Your task to perform on an android device: Turn off the flashlight Image 0: 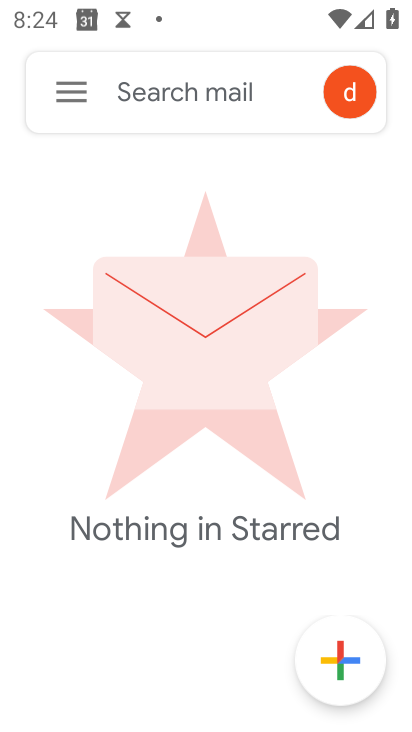
Step 0: press home button
Your task to perform on an android device: Turn off the flashlight Image 1: 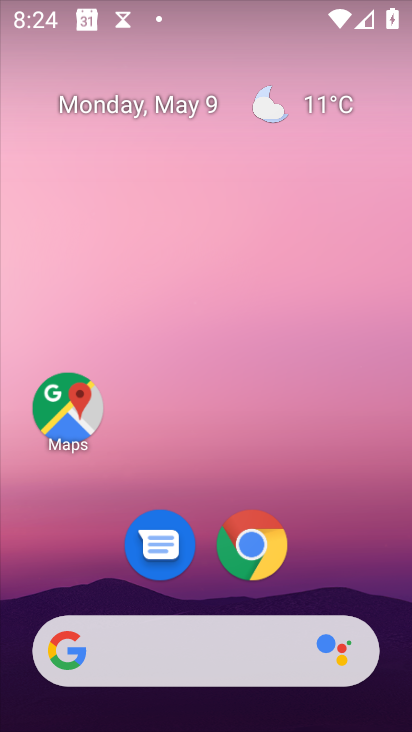
Step 1: drag from (212, 723) to (142, 171)
Your task to perform on an android device: Turn off the flashlight Image 2: 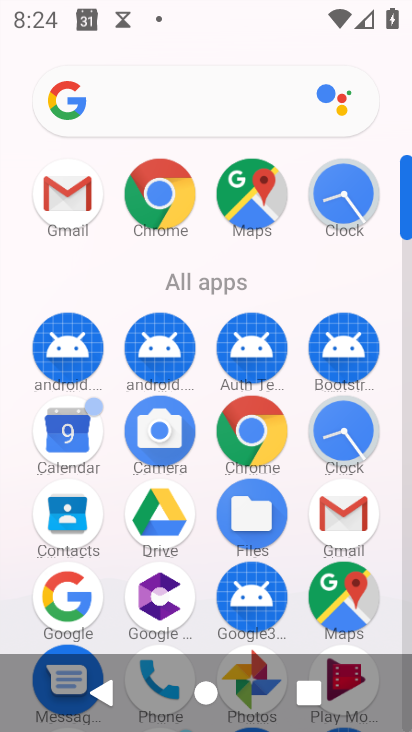
Step 2: drag from (205, 572) to (204, 244)
Your task to perform on an android device: Turn off the flashlight Image 3: 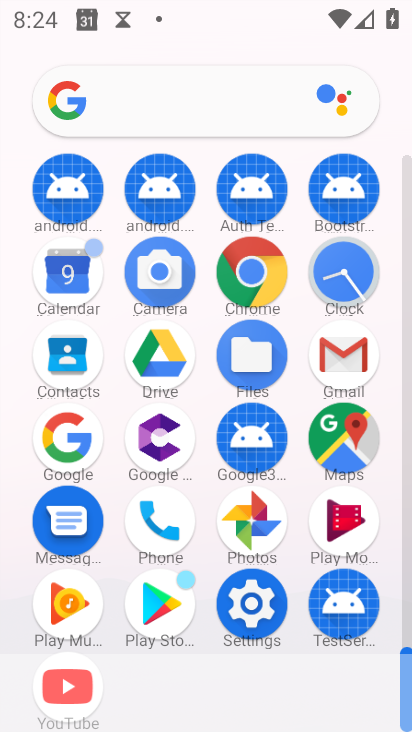
Step 3: click (261, 606)
Your task to perform on an android device: Turn off the flashlight Image 4: 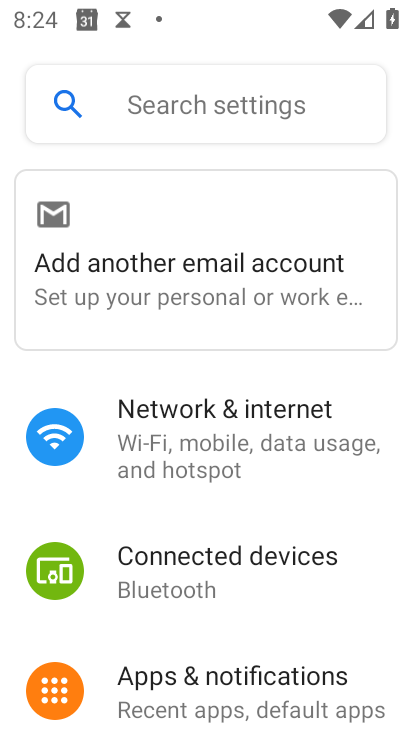
Step 4: task complete